Your task to perform on an android device: Go to privacy settings Image 0: 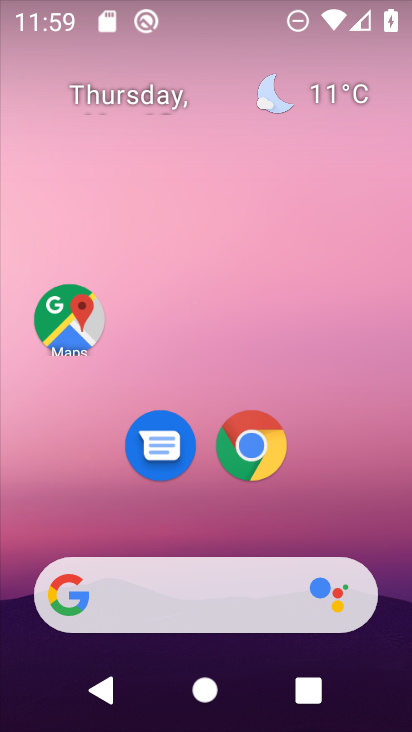
Step 0: drag from (179, 584) to (44, 30)
Your task to perform on an android device: Go to privacy settings Image 1: 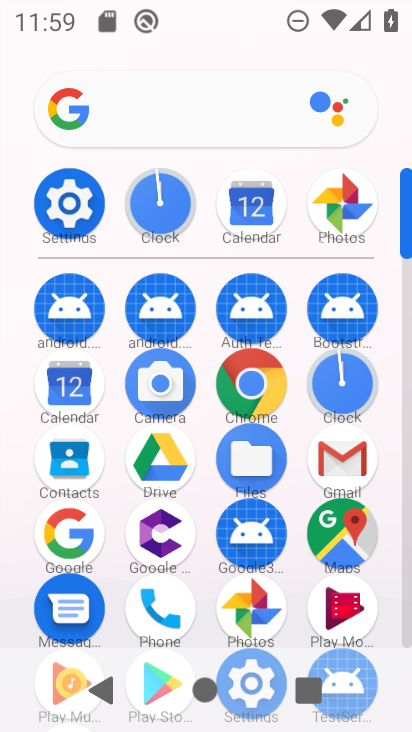
Step 1: click (67, 227)
Your task to perform on an android device: Go to privacy settings Image 2: 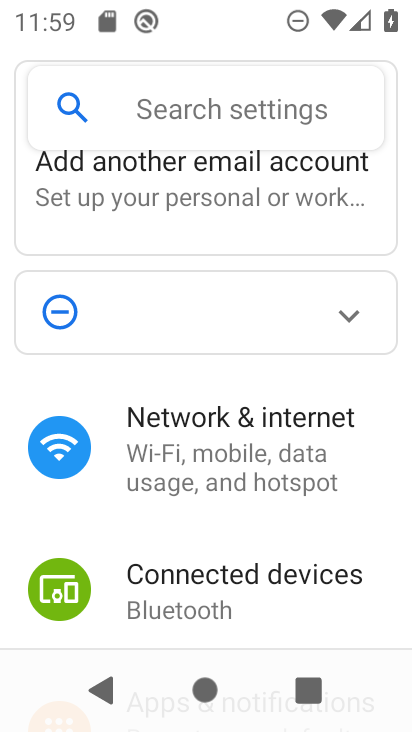
Step 2: drag from (166, 470) to (173, 16)
Your task to perform on an android device: Go to privacy settings Image 3: 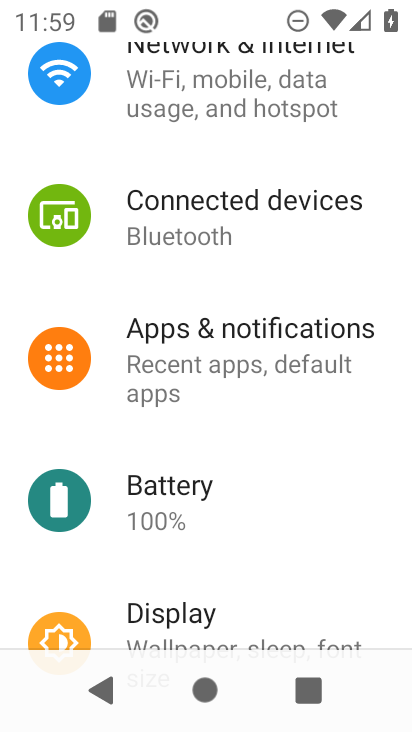
Step 3: drag from (147, 547) to (179, 59)
Your task to perform on an android device: Go to privacy settings Image 4: 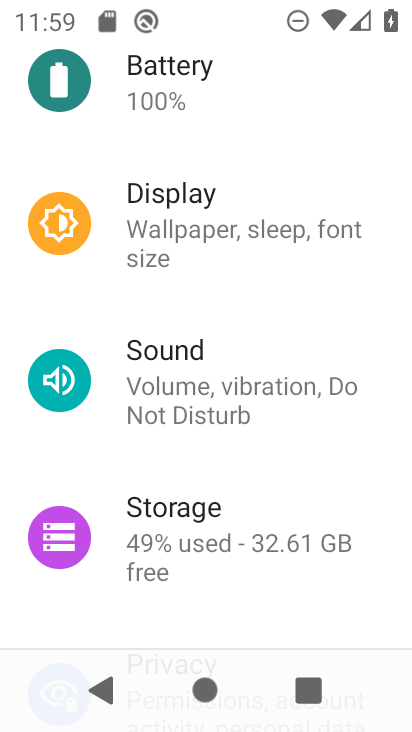
Step 4: drag from (149, 523) to (174, 77)
Your task to perform on an android device: Go to privacy settings Image 5: 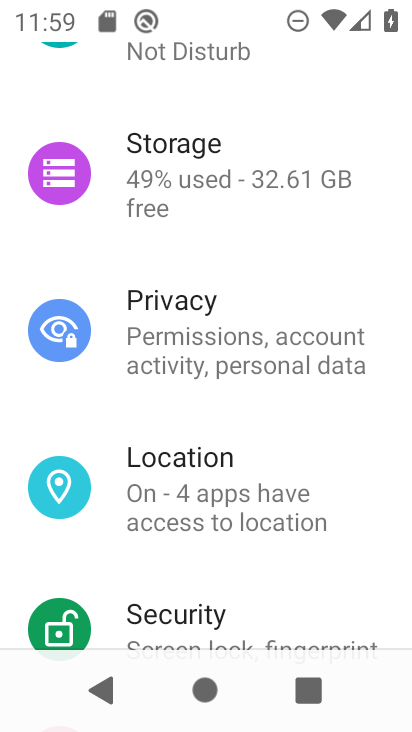
Step 5: click (176, 360)
Your task to perform on an android device: Go to privacy settings Image 6: 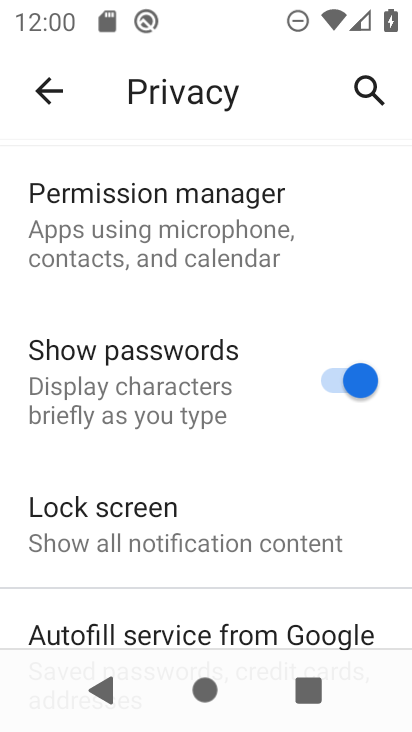
Step 6: task complete